Your task to perform on an android device: turn notification dots off Image 0: 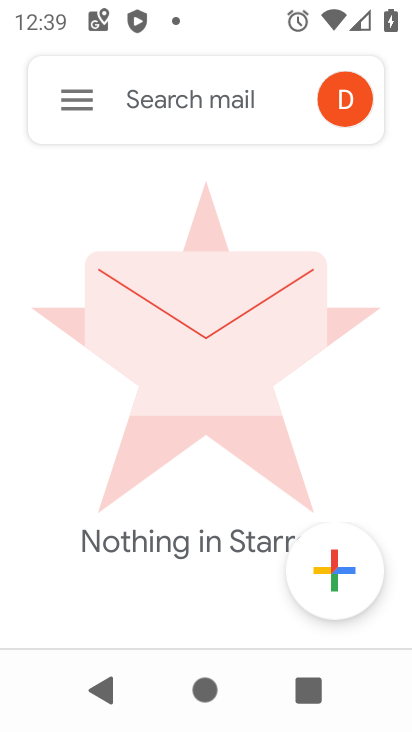
Step 0: press home button
Your task to perform on an android device: turn notification dots off Image 1: 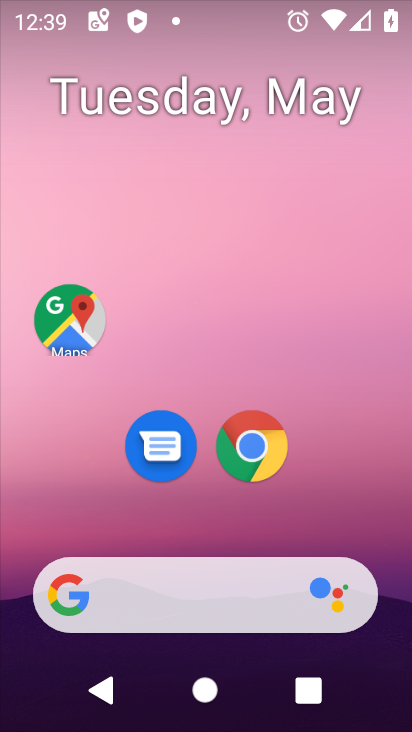
Step 1: drag from (343, 509) to (349, 145)
Your task to perform on an android device: turn notification dots off Image 2: 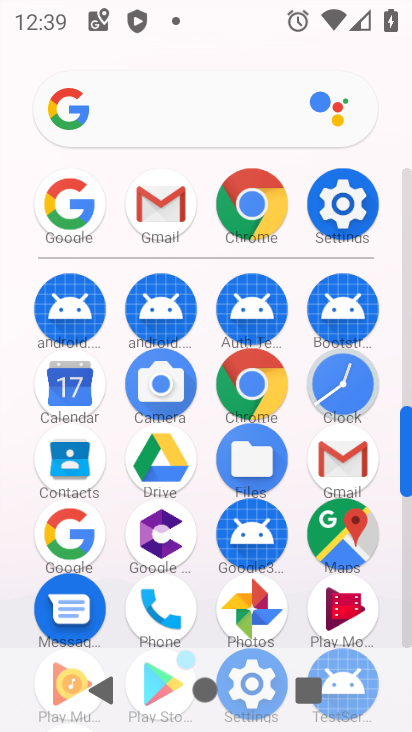
Step 2: click (336, 193)
Your task to perform on an android device: turn notification dots off Image 3: 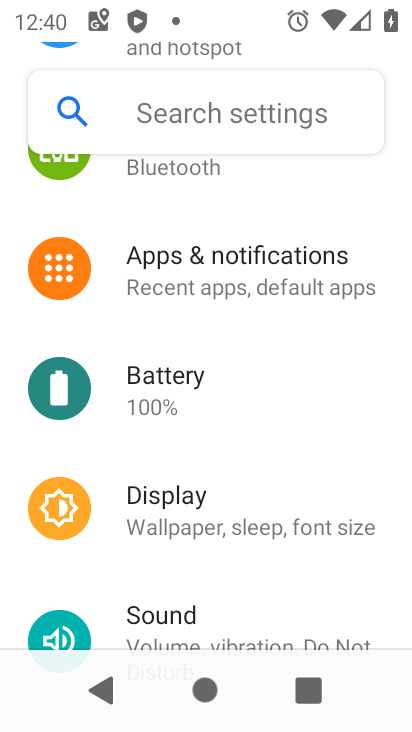
Step 3: click (159, 103)
Your task to perform on an android device: turn notification dots off Image 4: 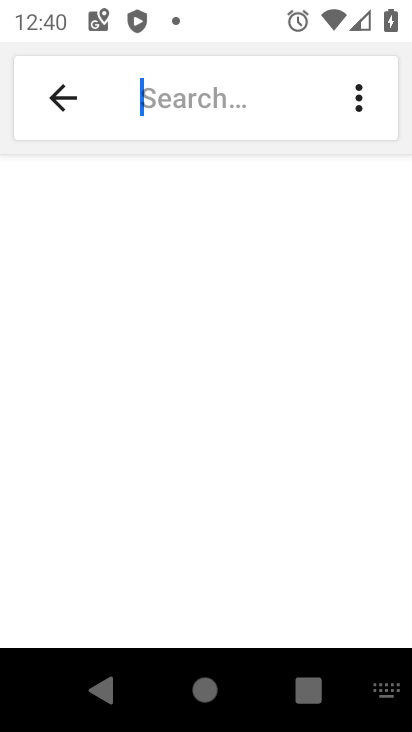
Step 4: click (170, 102)
Your task to perform on an android device: turn notification dots off Image 5: 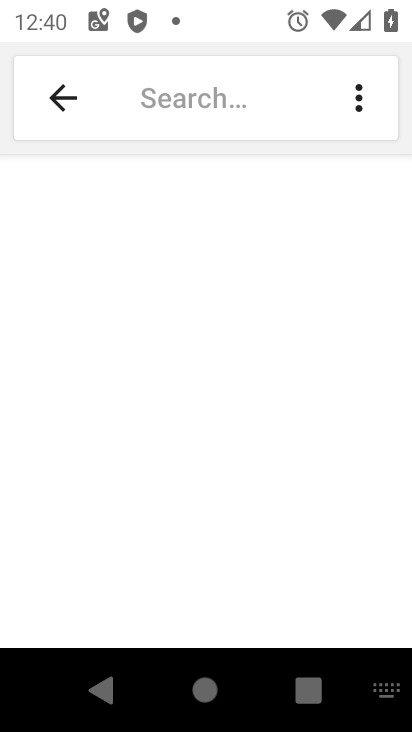
Step 5: type " notification dots "
Your task to perform on an android device: turn notification dots off Image 6: 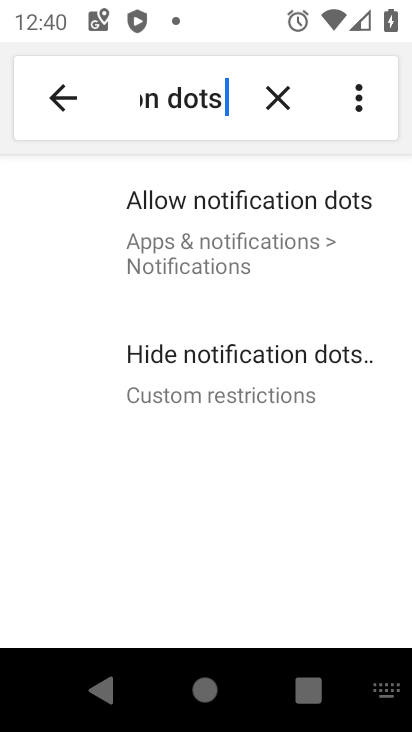
Step 6: click (258, 205)
Your task to perform on an android device: turn notification dots off Image 7: 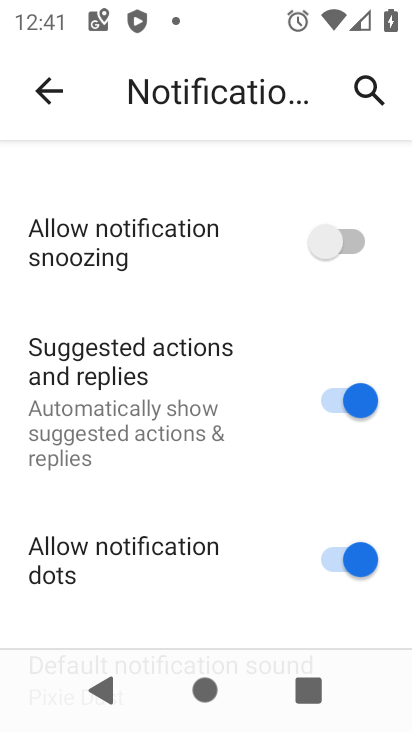
Step 7: task complete